Your task to perform on an android device: delete browsing data in the chrome app Image 0: 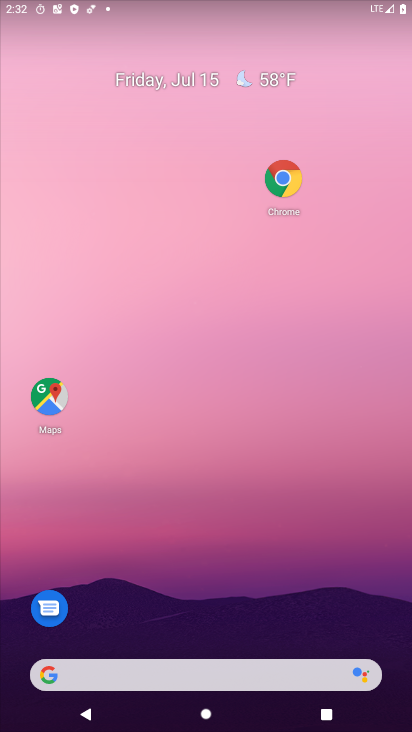
Step 0: drag from (259, 632) to (298, 124)
Your task to perform on an android device: delete browsing data in the chrome app Image 1: 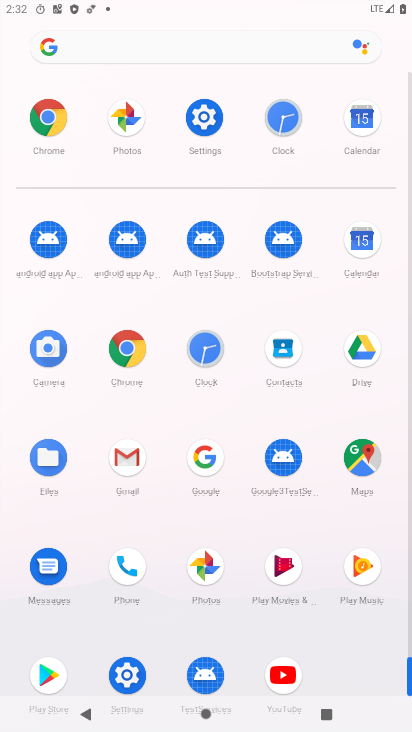
Step 1: click (139, 350)
Your task to perform on an android device: delete browsing data in the chrome app Image 2: 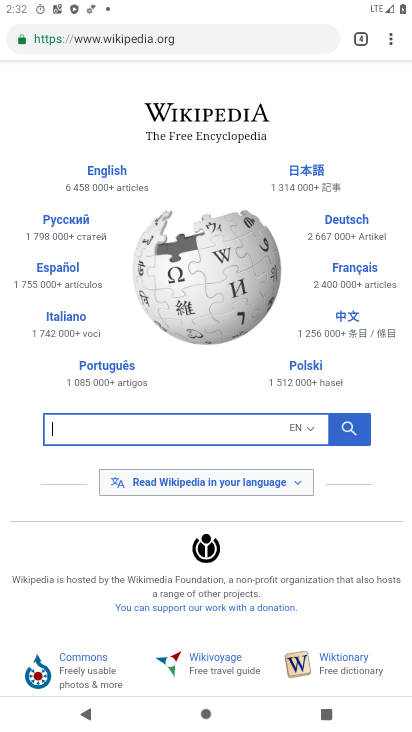
Step 2: drag from (388, 36) to (261, 467)
Your task to perform on an android device: delete browsing data in the chrome app Image 3: 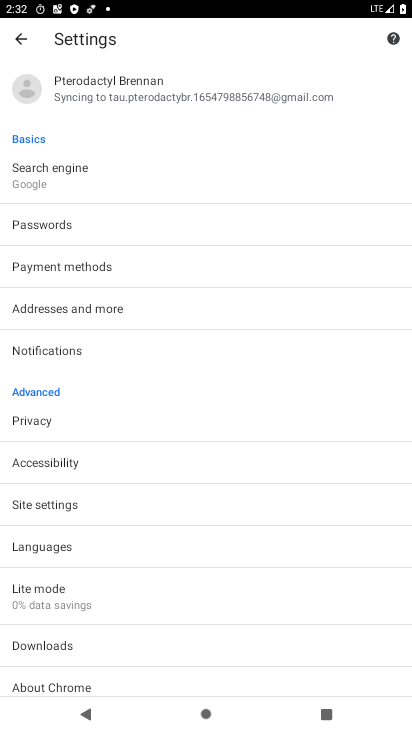
Step 3: drag from (141, 633) to (146, 329)
Your task to perform on an android device: delete browsing data in the chrome app Image 4: 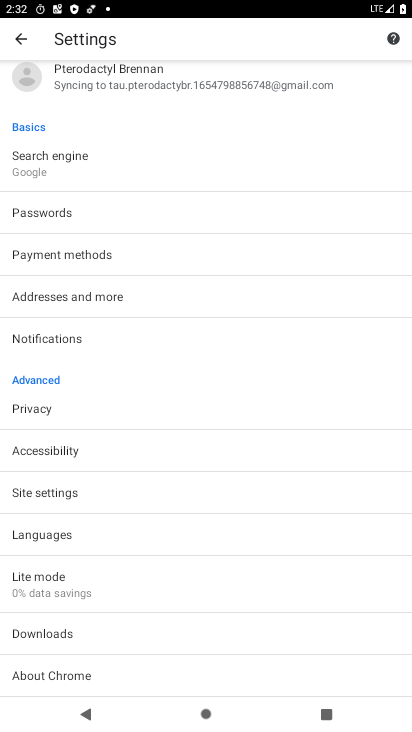
Step 4: click (16, 401)
Your task to perform on an android device: delete browsing data in the chrome app Image 5: 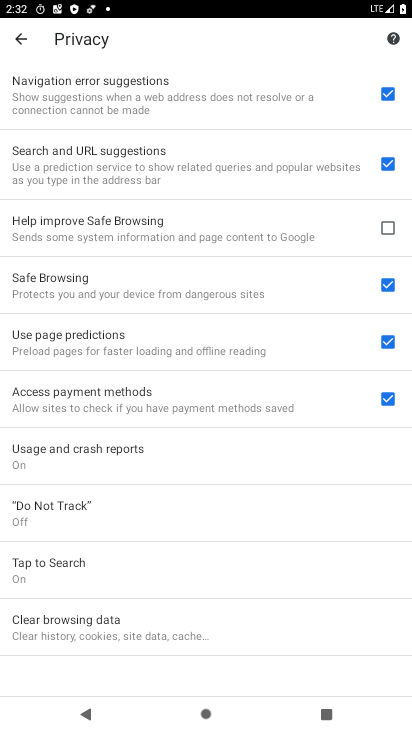
Step 5: click (159, 635)
Your task to perform on an android device: delete browsing data in the chrome app Image 6: 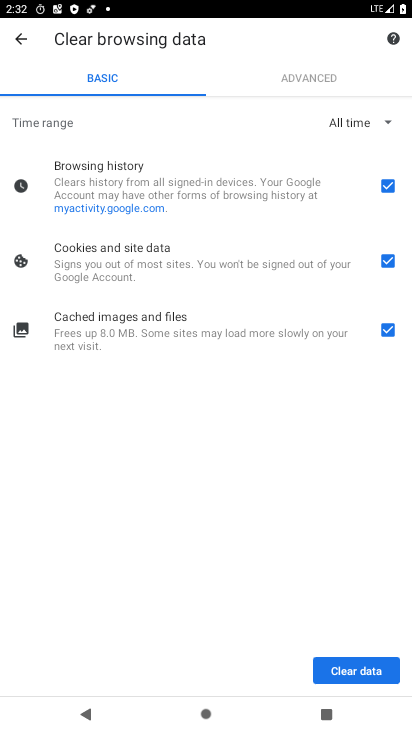
Step 6: click (393, 664)
Your task to perform on an android device: delete browsing data in the chrome app Image 7: 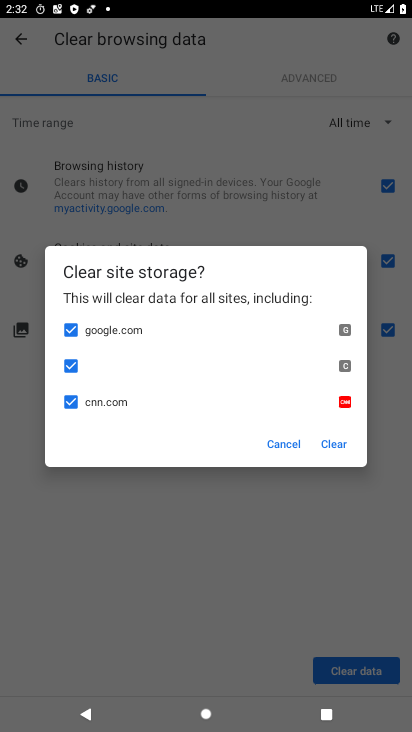
Step 7: click (324, 443)
Your task to perform on an android device: delete browsing data in the chrome app Image 8: 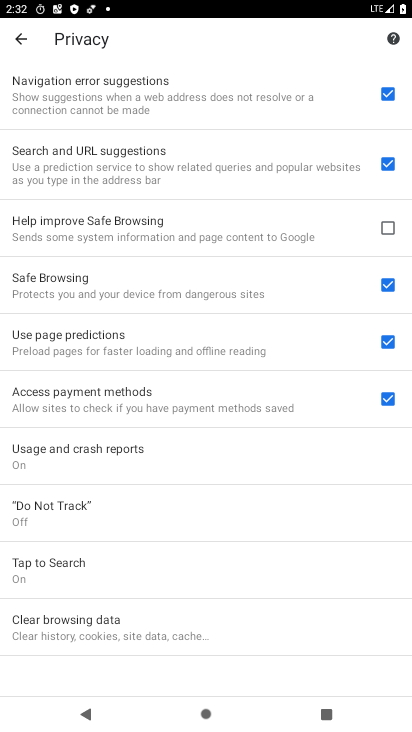
Step 8: task complete